Your task to perform on an android device: set the timer Image 0: 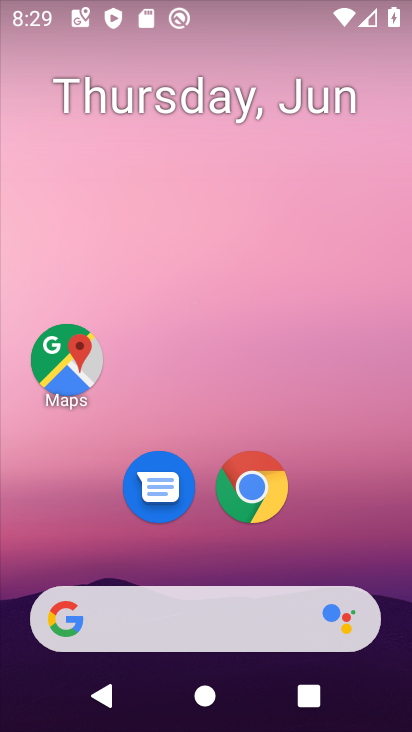
Step 0: drag from (183, 578) to (202, 183)
Your task to perform on an android device: set the timer Image 1: 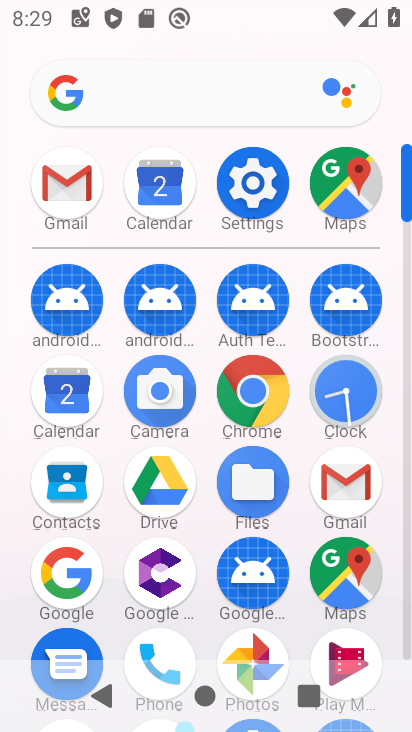
Step 1: drag from (200, 612) to (200, 169)
Your task to perform on an android device: set the timer Image 2: 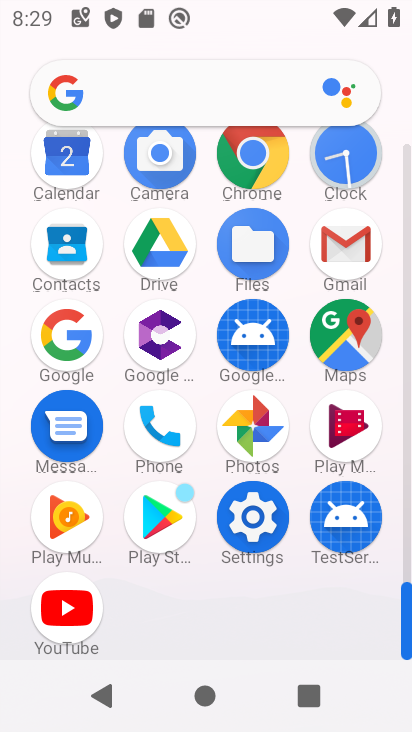
Step 2: drag from (200, 599) to (206, 275)
Your task to perform on an android device: set the timer Image 3: 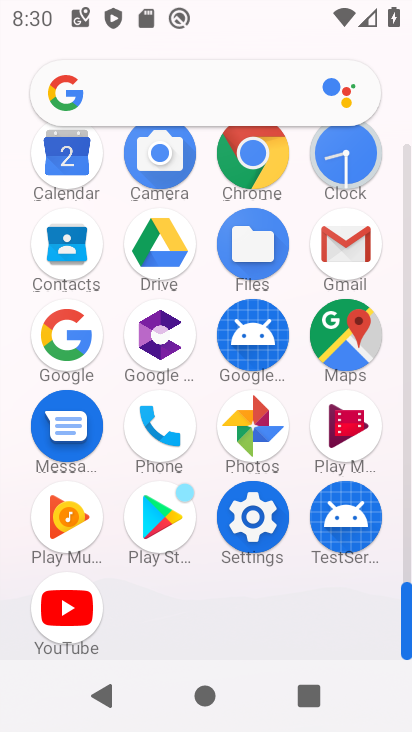
Step 3: click (337, 151)
Your task to perform on an android device: set the timer Image 4: 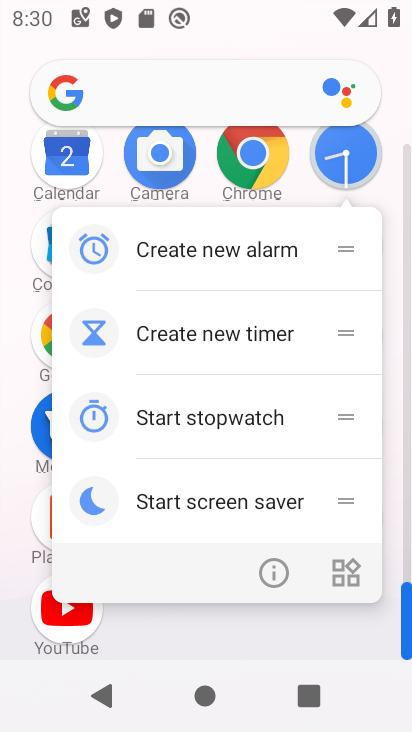
Step 4: click (266, 577)
Your task to perform on an android device: set the timer Image 5: 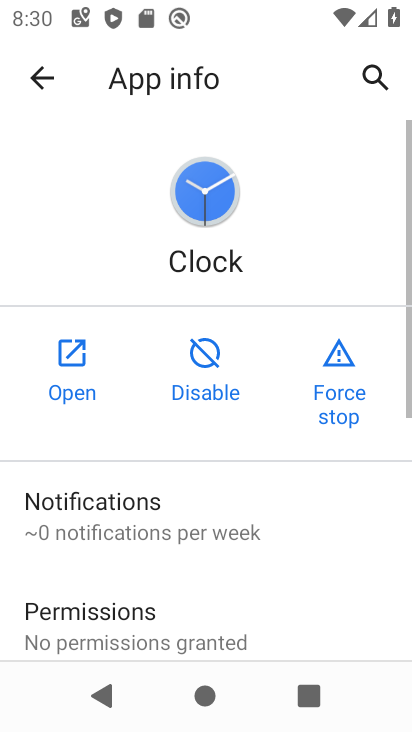
Step 5: click (64, 385)
Your task to perform on an android device: set the timer Image 6: 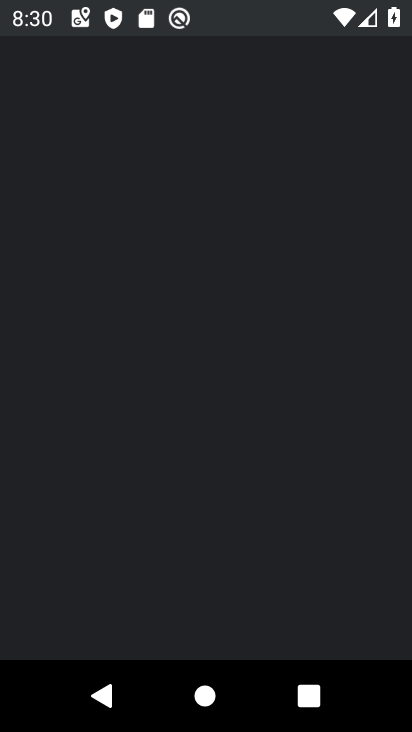
Step 6: drag from (236, 604) to (278, 218)
Your task to perform on an android device: set the timer Image 7: 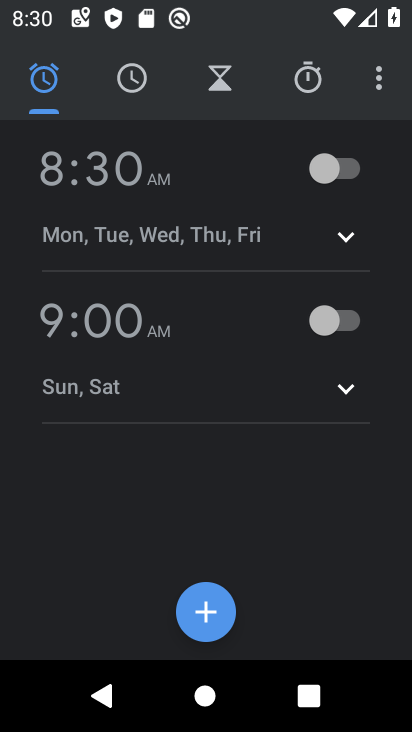
Step 7: click (303, 75)
Your task to perform on an android device: set the timer Image 8: 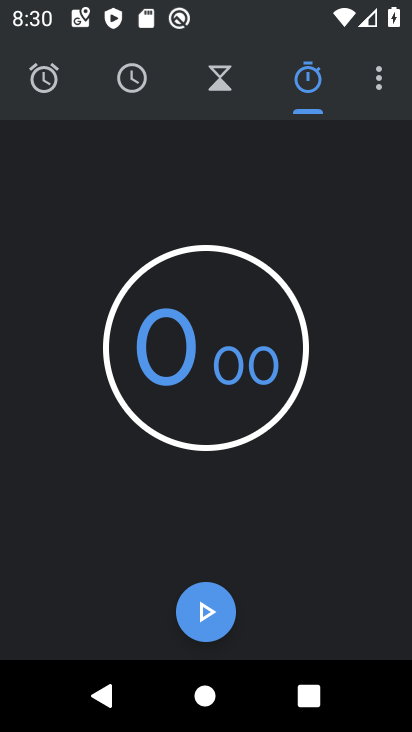
Step 8: drag from (379, 82) to (7, 75)
Your task to perform on an android device: set the timer Image 9: 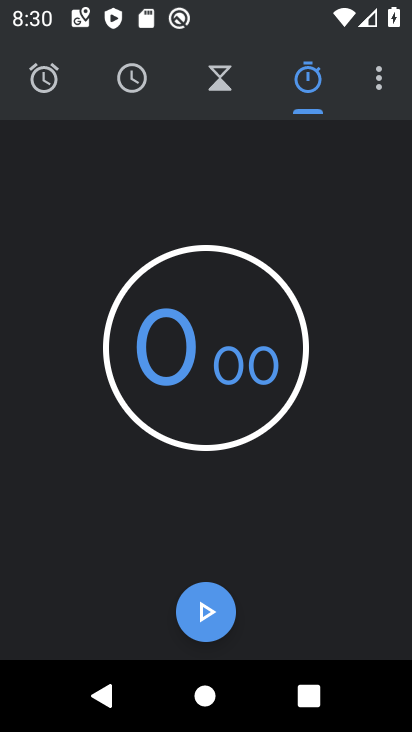
Step 9: click (46, 94)
Your task to perform on an android device: set the timer Image 10: 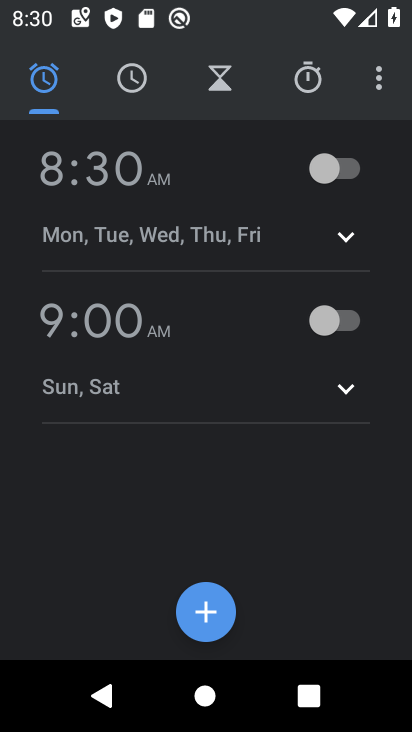
Step 10: click (148, 76)
Your task to perform on an android device: set the timer Image 11: 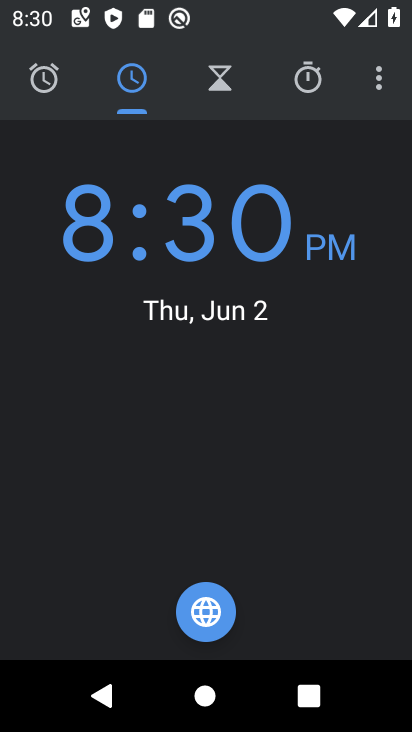
Step 11: click (234, 64)
Your task to perform on an android device: set the timer Image 12: 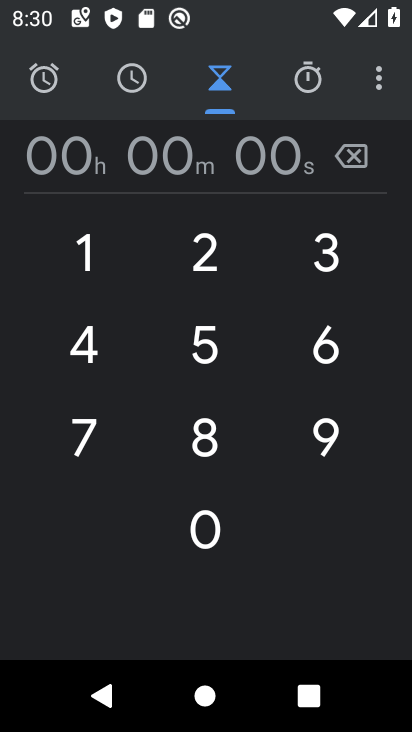
Step 12: click (188, 272)
Your task to perform on an android device: set the timer Image 13: 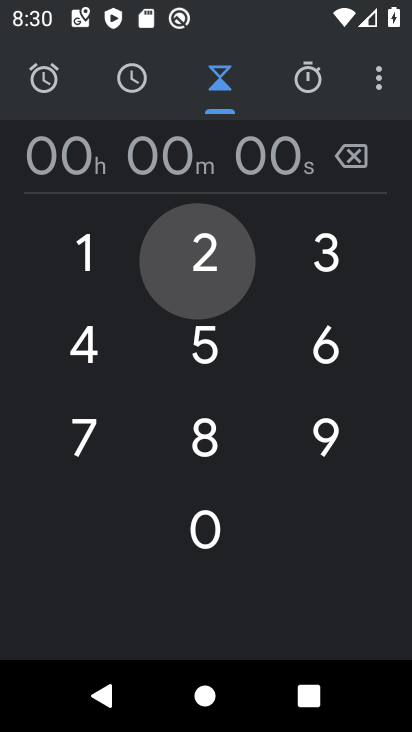
Step 13: click (213, 311)
Your task to perform on an android device: set the timer Image 14: 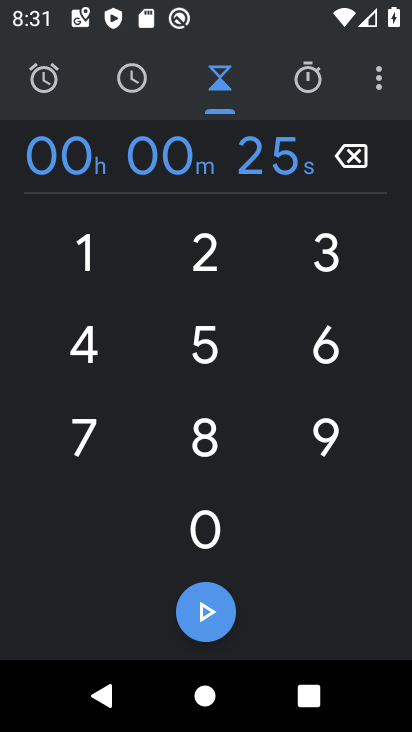
Step 14: click (207, 601)
Your task to perform on an android device: set the timer Image 15: 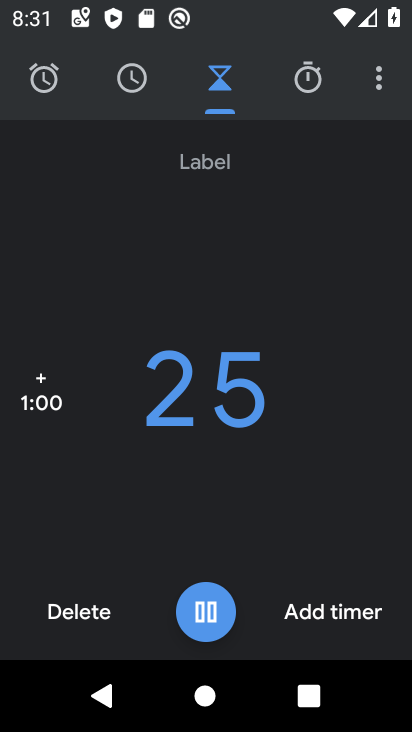
Step 15: task complete